Your task to perform on an android device: Open the web browser Image 0: 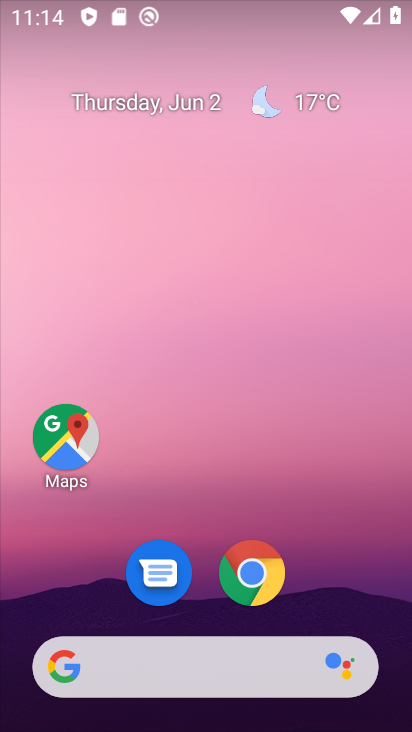
Step 0: task complete